Your task to perform on an android device: Open settings on Google Maps Image 0: 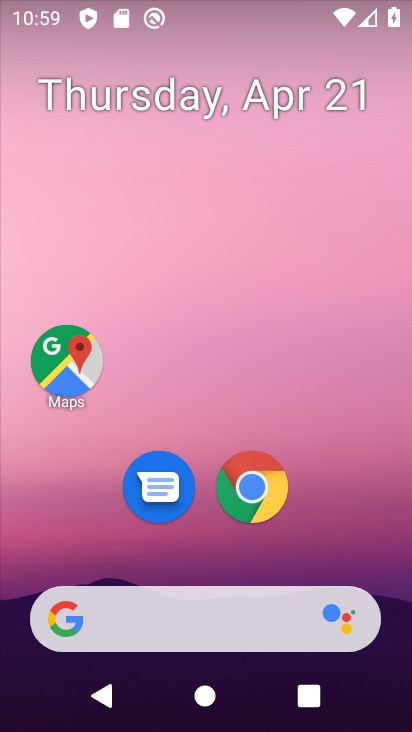
Step 0: click (58, 357)
Your task to perform on an android device: Open settings on Google Maps Image 1: 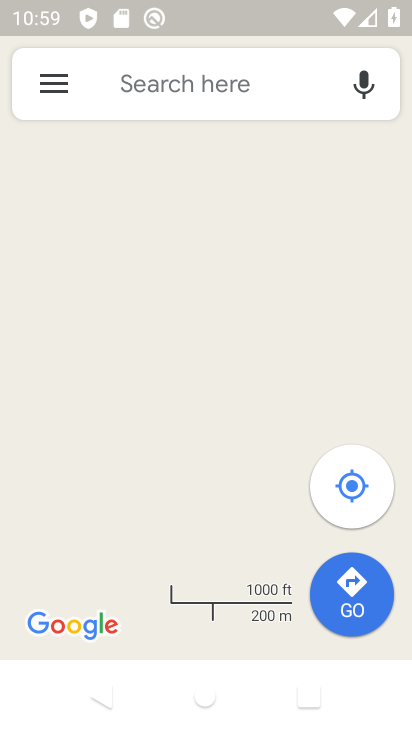
Step 1: click (59, 80)
Your task to perform on an android device: Open settings on Google Maps Image 2: 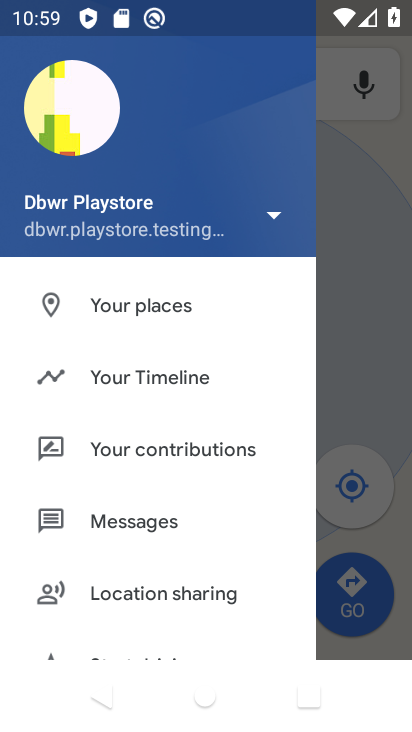
Step 2: drag from (135, 547) to (195, 164)
Your task to perform on an android device: Open settings on Google Maps Image 3: 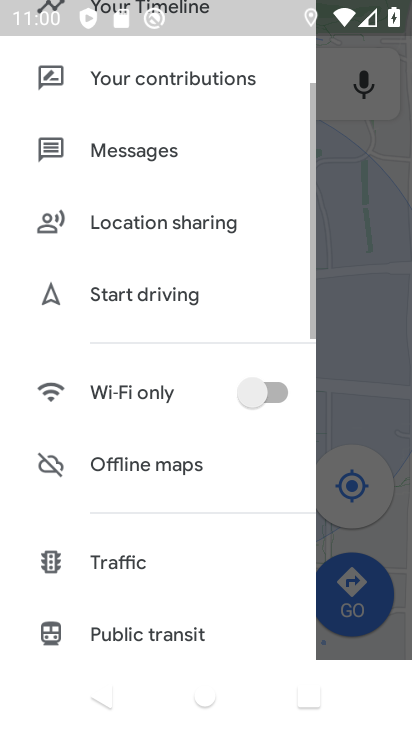
Step 3: drag from (155, 578) to (206, 105)
Your task to perform on an android device: Open settings on Google Maps Image 4: 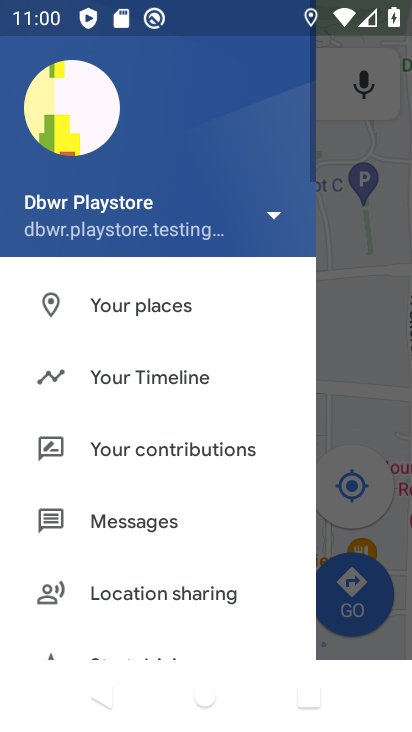
Step 4: drag from (170, 472) to (209, 50)
Your task to perform on an android device: Open settings on Google Maps Image 5: 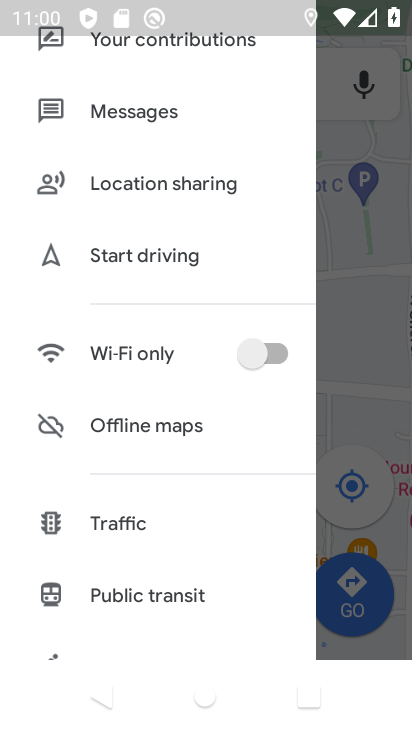
Step 5: drag from (177, 571) to (189, 50)
Your task to perform on an android device: Open settings on Google Maps Image 6: 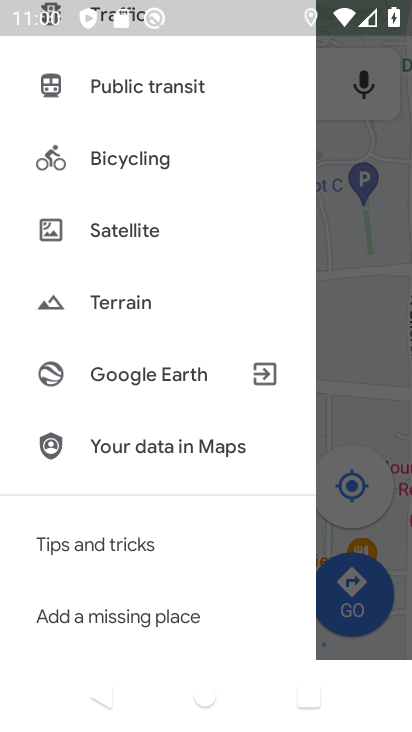
Step 6: drag from (148, 578) to (155, 168)
Your task to perform on an android device: Open settings on Google Maps Image 7: 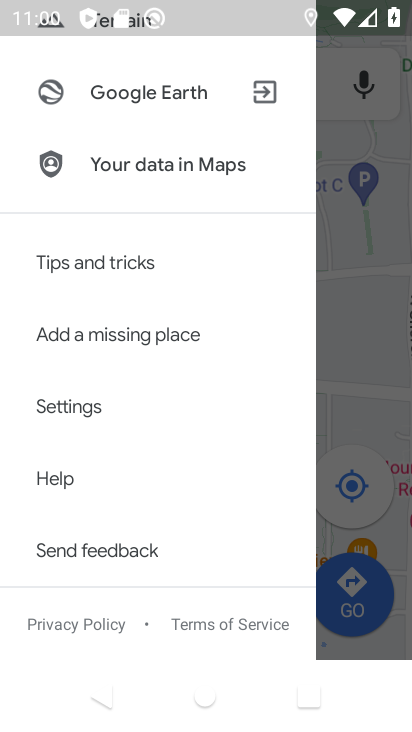
Step 7: click (89, 407)
Your task to perform on an android device: Open settings on Google Maps Image 8: 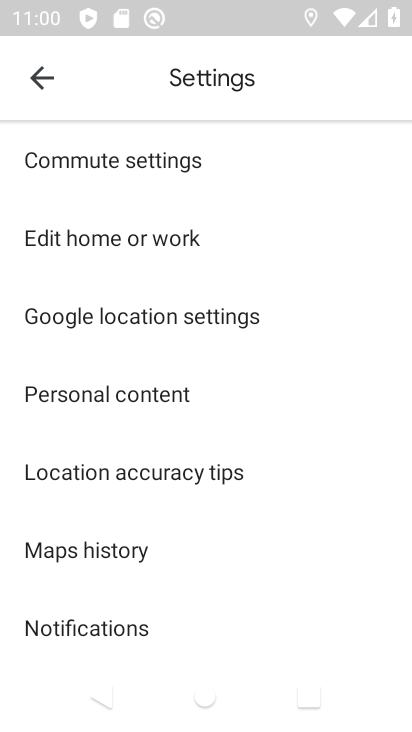
Step 8: task complete